Your task to perform on an android device: turn on improve location accuracy Image 0: 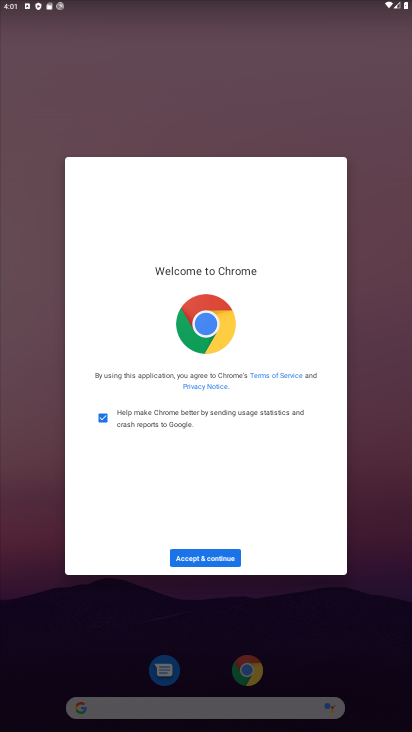
Step 0: press home button
Your task to perform on an android device: turn on improve location accuracy Image 1: 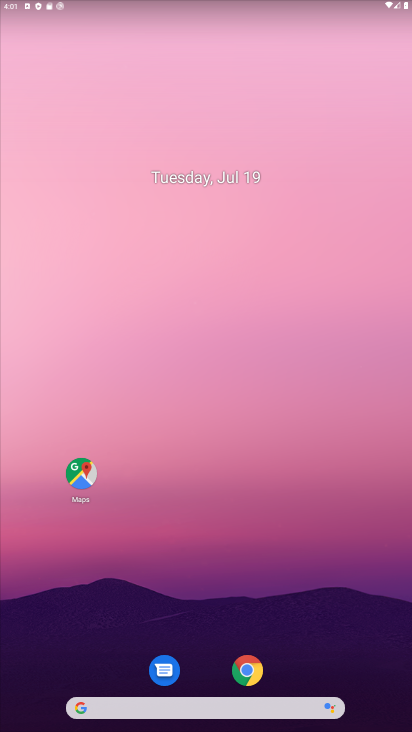
Step 1: drag from (254, 690) to (238, 50)
Your task to perform on an android device: turn on improve location accuracy Image 2: 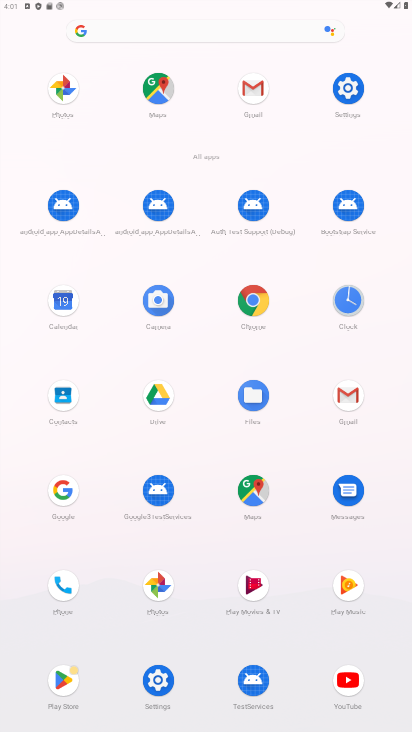
Step 2: click (345, 88)
Your task to perform on an android device: turn on improve location accuracy Image 3: 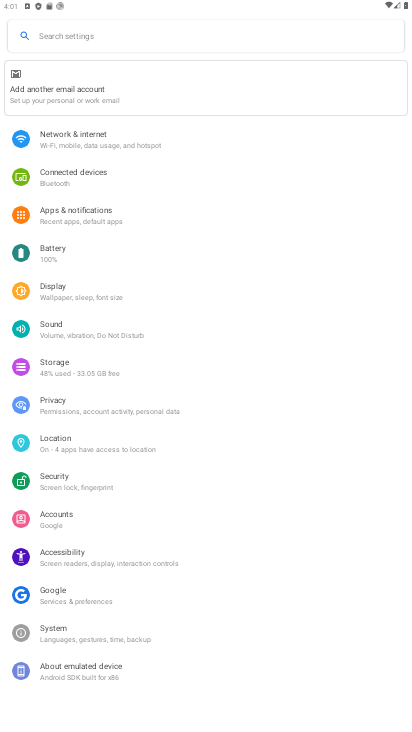
Step 3: click (63, 448)
Your task to perform on an android device: turn on improve location accuracy Image 4: 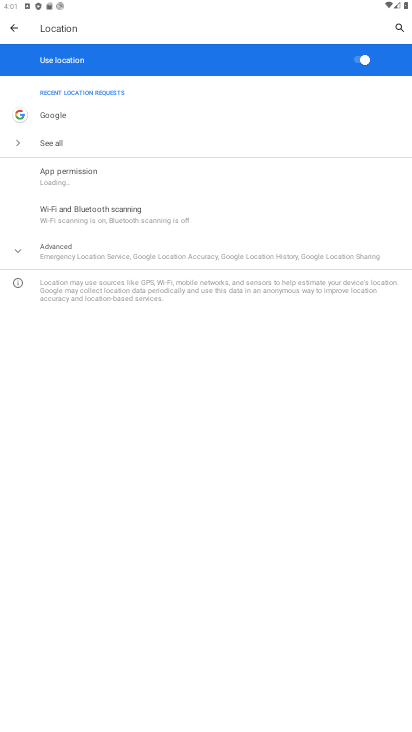
Step 4: click (84, 253)
Your task to perform on an android device: turn on improve location accuracy Image 5: 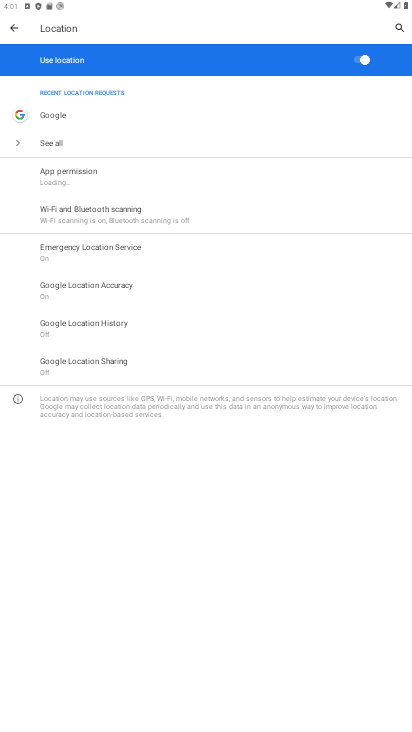
Step 5: click (120, 289)
Your task to perform on an android device: turn on improve location accuracy Image 6: 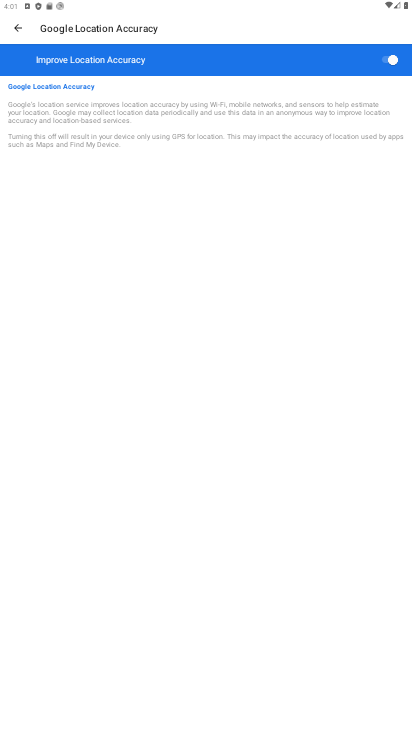
Step 6: task complete